Your task to perform on an android device: change the clock style Image 0: 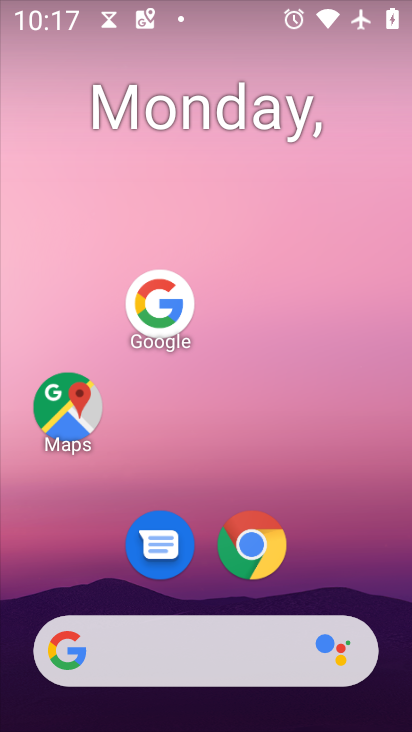
Step 0: press home button
Your task to perform on an android device: change the clock style Image 1: 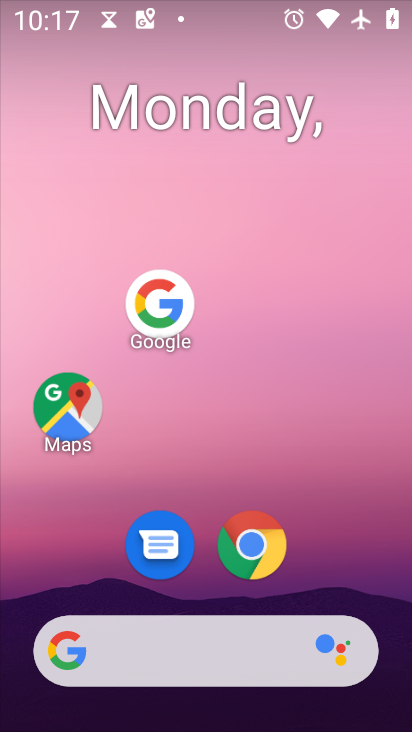
Step 1: drag from (185, 634) to (303, 122)
Your task to perform on an android device: change the clock style Image 2: 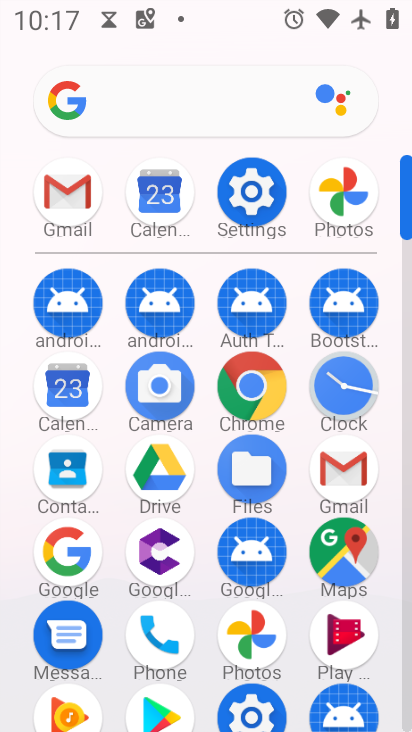
Step 2: click (347, 378)
Your task to perform on an android device: change the clock style Image 3: 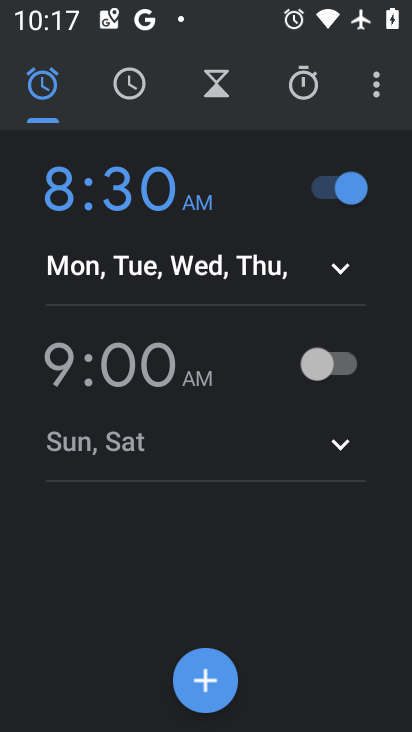
Step 3: click (375, 92)
Your task to perform on an android device: change the clock style Image 4: 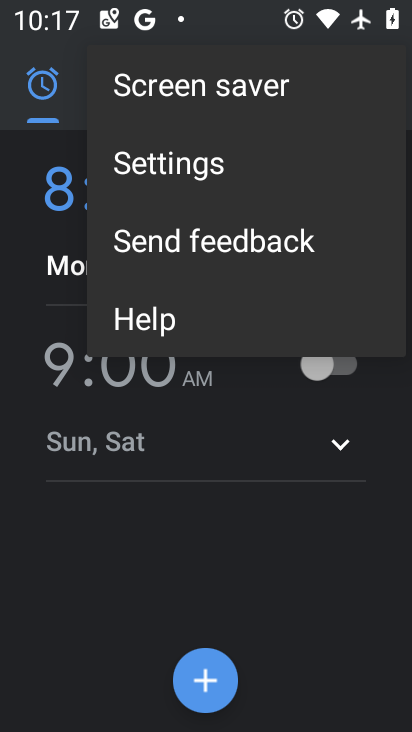
Step 4: click (216, 173)
Your task to perform on an android device: change the clock style Image 5: 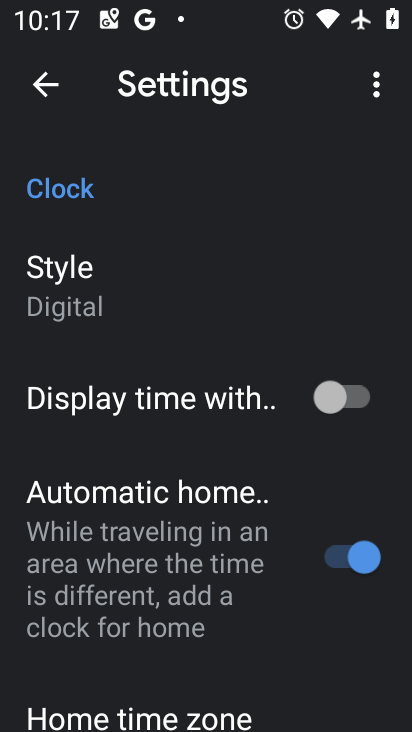
Step 5: click (84, 304)
Your task to perform on an android device: change the clock style Image 6: 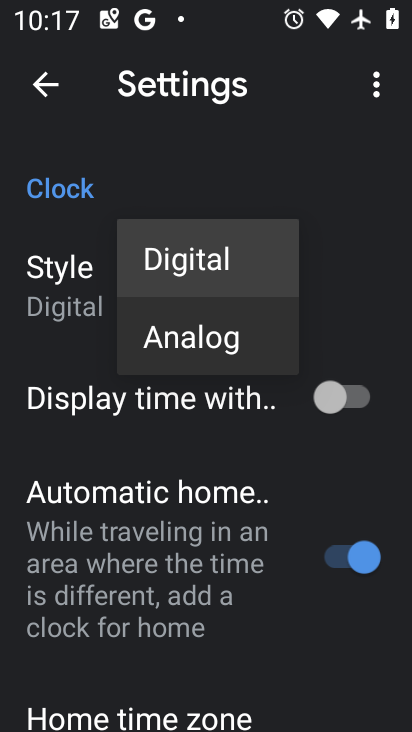
Step 6: click (186, 344)
Your task to perform on an android device: change the clock style Image 7: 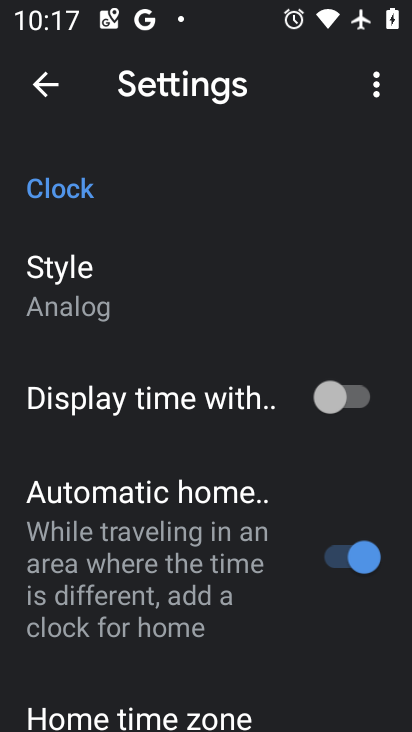
Step 7: task complete